Your task to perform on an android device: add a contact in the contacts app Image 0: 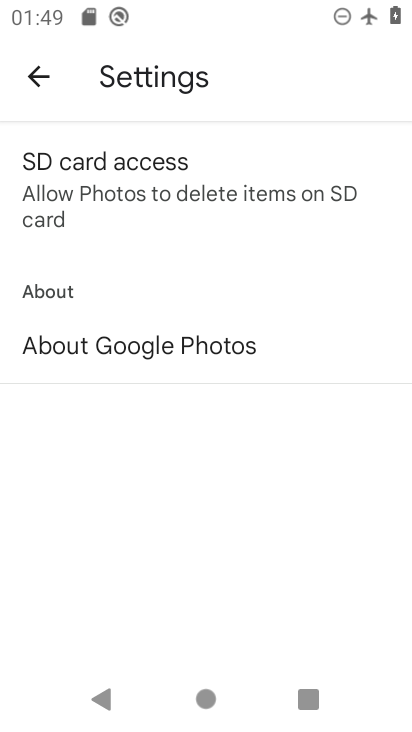
Step 0: press home button
Your task to perform on an android device: add a contact in the contacts app Image 1: 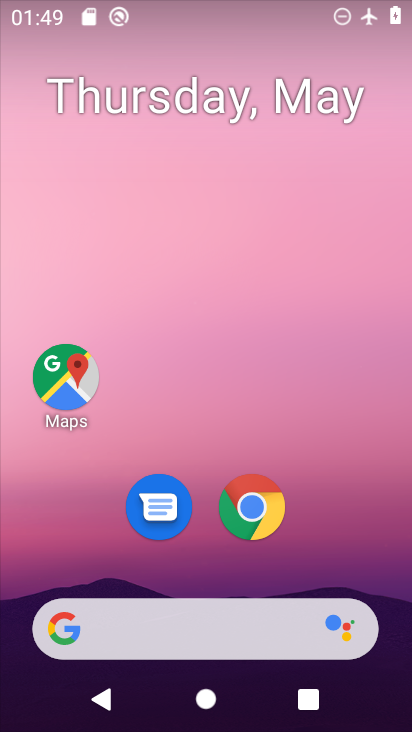
Step 1: drag from (366, 582) to (260, 62)
Your task to perform on an android device: add a contact in the contacts app Image 2: 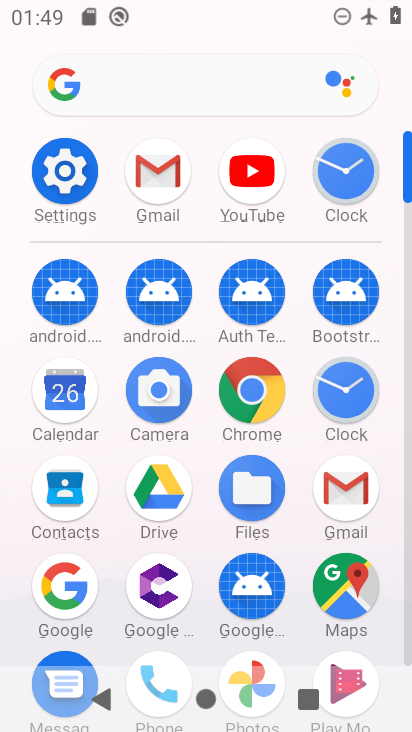
Step 2: click (77, 479)
Your task to perform on an android device: add a contact in the contacts app Image 3: 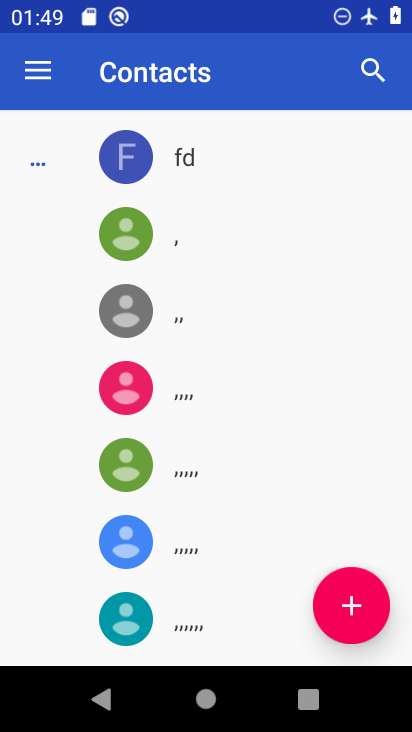
Step 3: click (357, 584)
Your task to perform on an android device: add a contact in the contacts app Image 4: 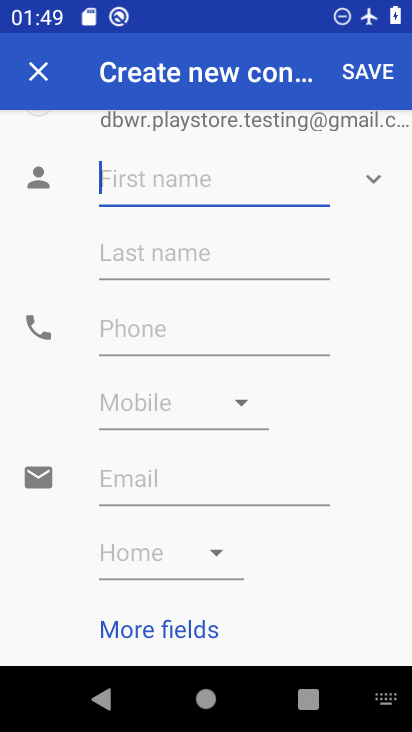
Step 4: type "xdcvsd"
Your task to perform on an android device: add a contact in the contacts app Image 5: 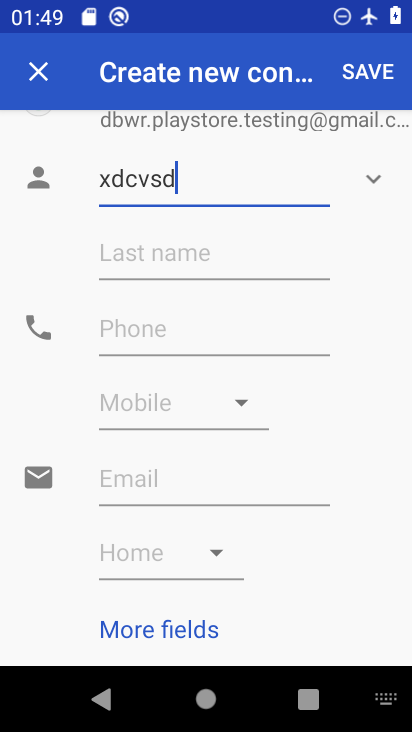
Step 5: click (380, 62)
Your task to perform on an android device: add a contact in the contacts app Image 6: 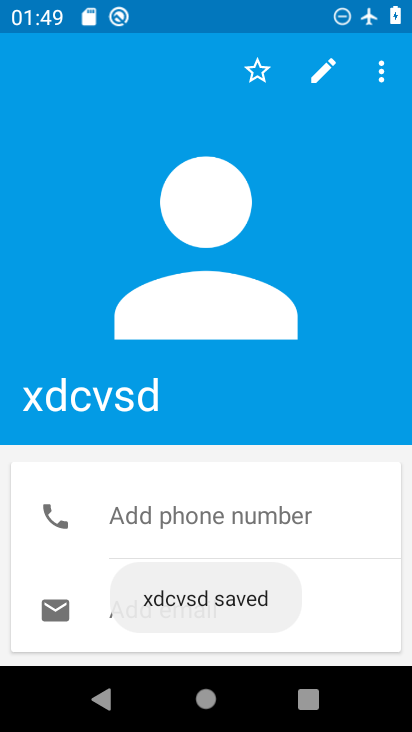
Step 6: task complete